Your task to perform on an android device: add a contact Image 0: 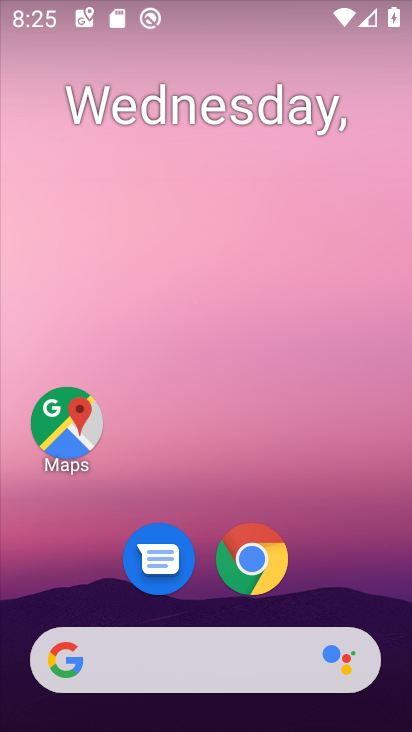
Step 0: drag from (357, 445) to (292, 110)
Your task to perform on an android device: add a contact Image 1: 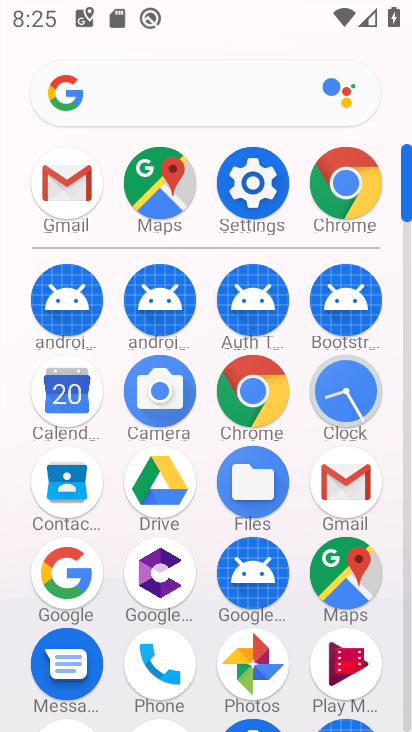
Step 1: click (42, 482)
Your task to perform on an android device: add a contact Image 2: 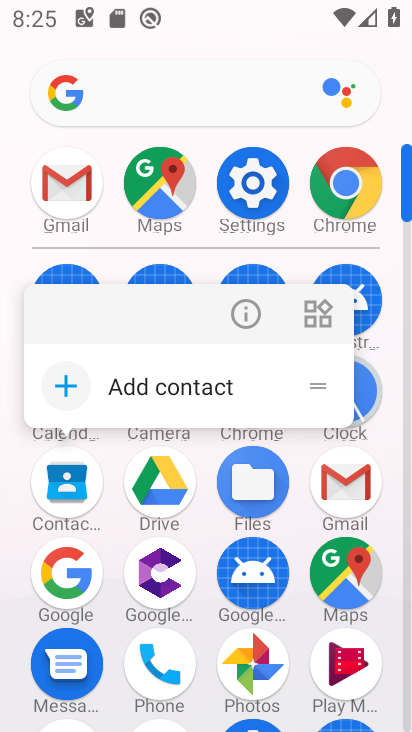
Step 2: click (54, 485)
Your task to perform on an android device: add a contact Image 3: 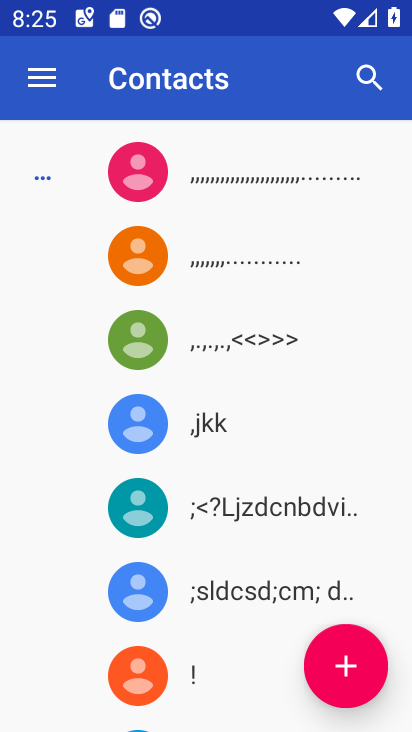
Step 3: click (330, 668)
Your task to perform on an android device: add a contact Image 4: 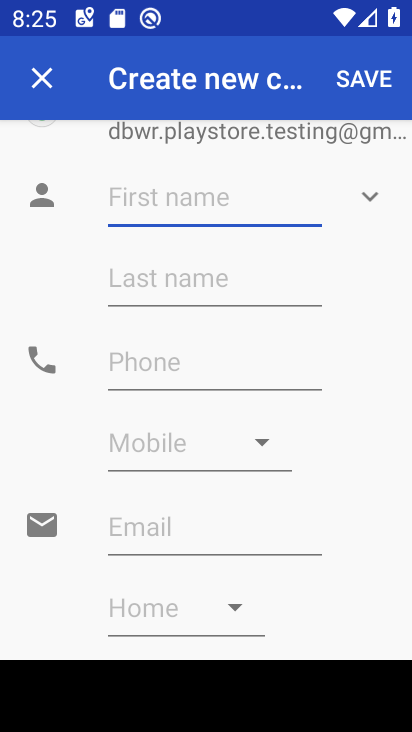
Step 4: type "om"
Your task to perform on an android device: add a contact Image 5: 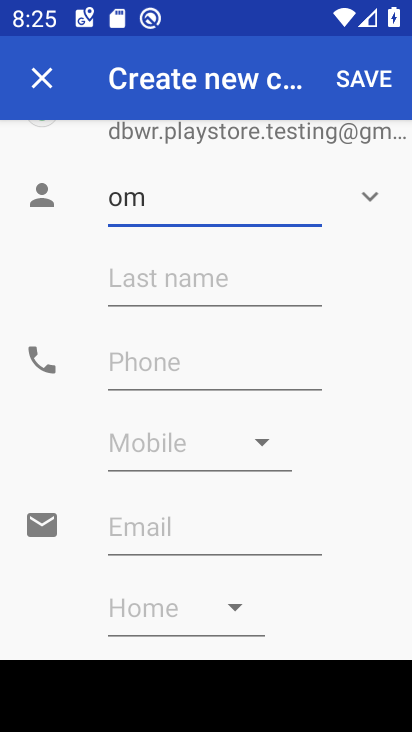
Step 5: click (209, 369)
Your task to perform on an android device: add a contact Image 6: 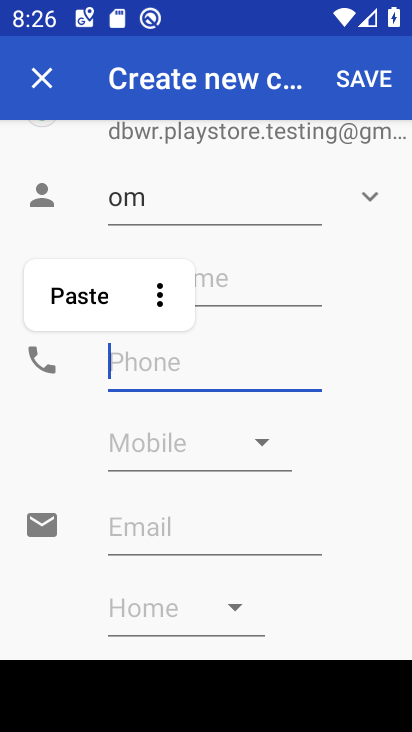
Step 6: type "945745937"
Your task to perform on an android device: add a contact Image 7: 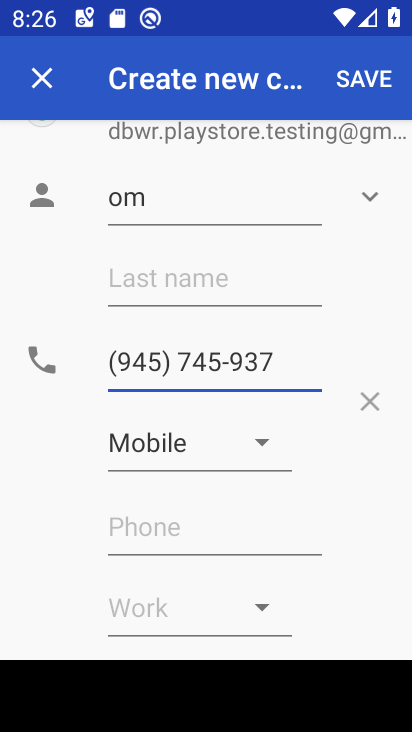
Step 7: click (362, 77)
Your task to perform on an android device: add a contact Image 8: 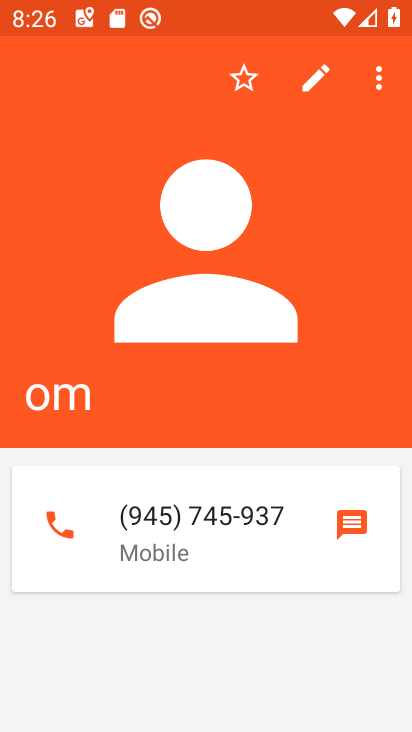
Step 8: task complete